Your task to perform on an android device: change the clock display to digital Image 0: 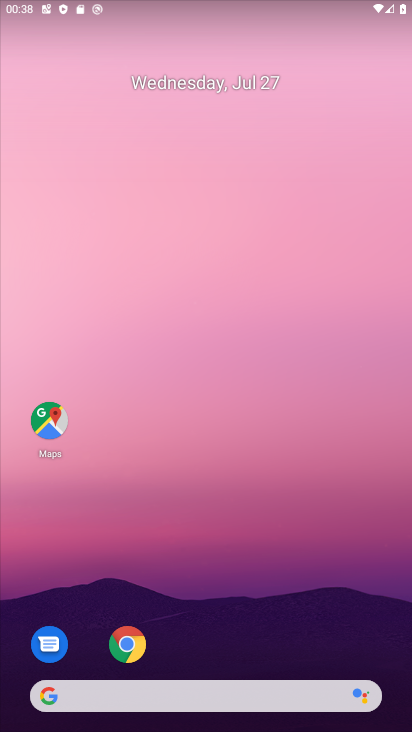
Step 0: drag from (223, 559) to (293, 142)
Your task to perform on an android device: change the clock display to digital Image 1: 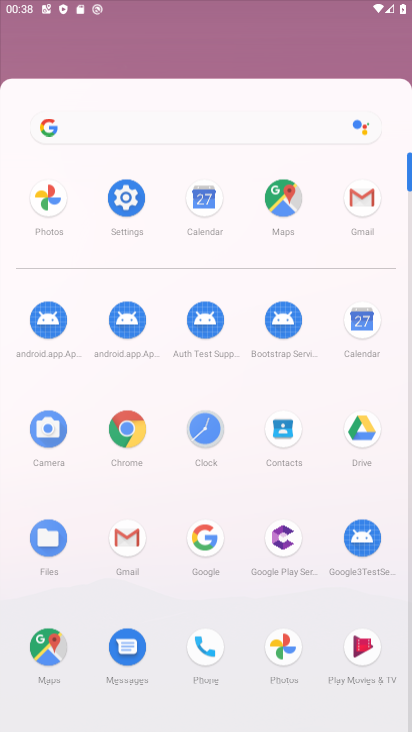
Step 1: drag from (279, 357) to (271, 196)
Your task to perform on an android device: change the clock display to digital Image 2: 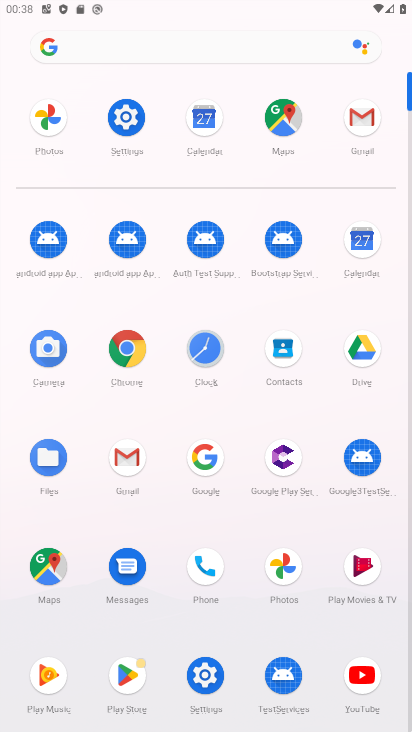
Step 2: drag from (299, 396) to (259, 0)
Your task to perform on an android device: change the clock display to digital Image 3: 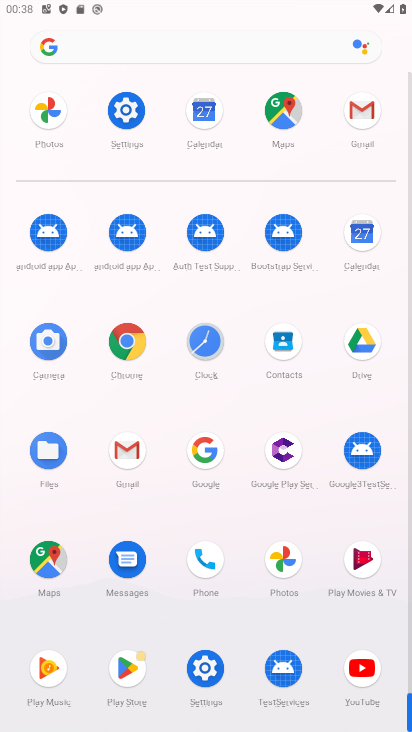
Step 3: click (199, 342)
Your task to perform on an android device: change the clock display to digital Image 4: 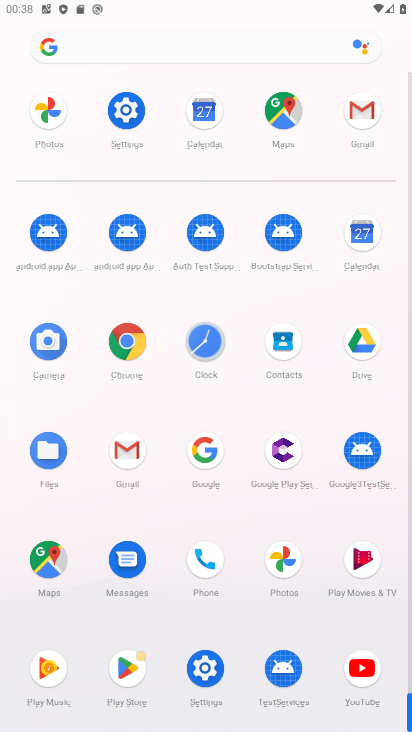
Step 4: click (209, 341)
Your task to perform on an android device: change the clock display to digital Image 5: 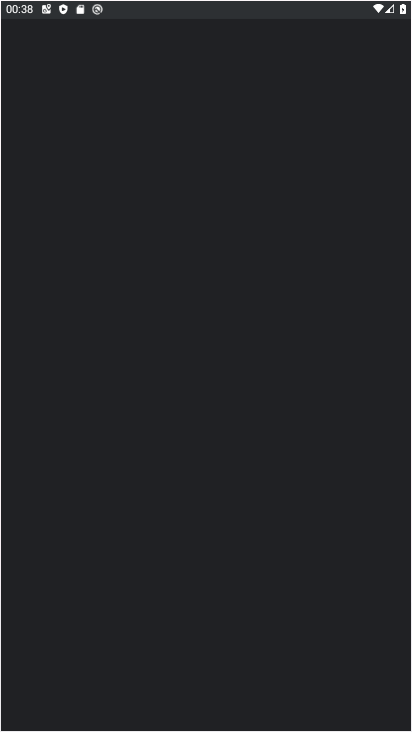
Step 5: click (211, 343)
Your task to perform on an android device: change the clock display to digital Image 6: 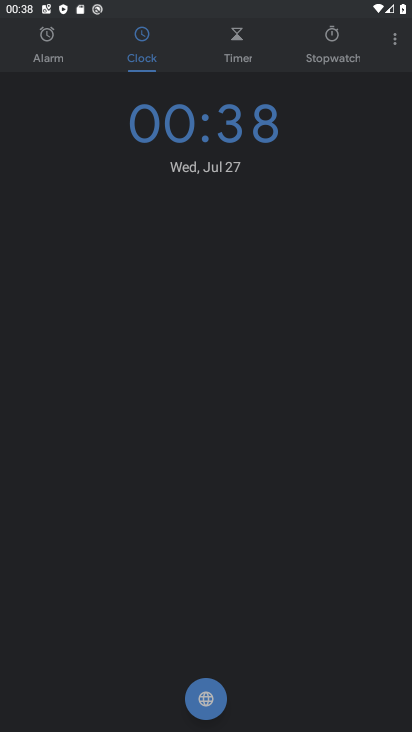
Step 6: click (211, 343)
Your task to perform on an android device: change the clock display to digital Image 7: 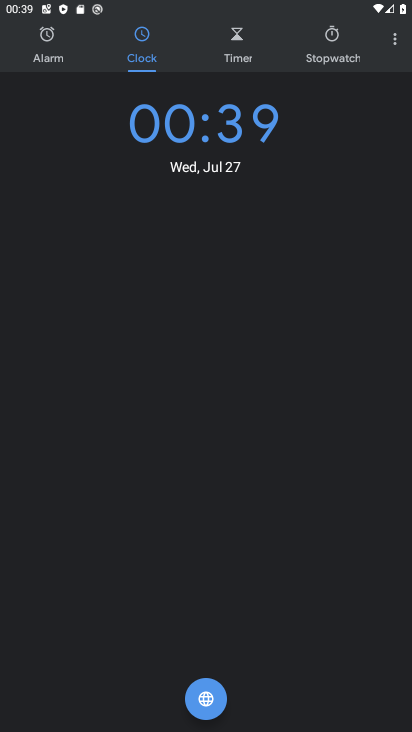
Step 7: drag from (394, 40) to (299, 69)
Your task to perform on an android device: change the clock display to digital Image 8: 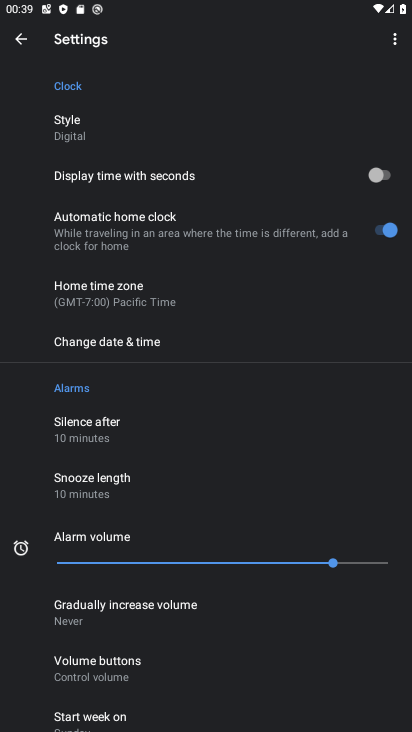
Step 8: click (368, 182)
Your task to perform on an android device: change the clock display to digital Image 9: 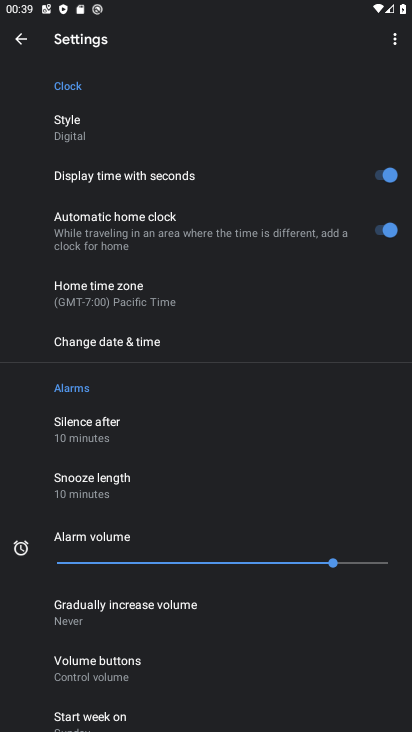
Step 9: click (83, 129)
Your task to perform on an android device: change the clock display to digital Image 10: 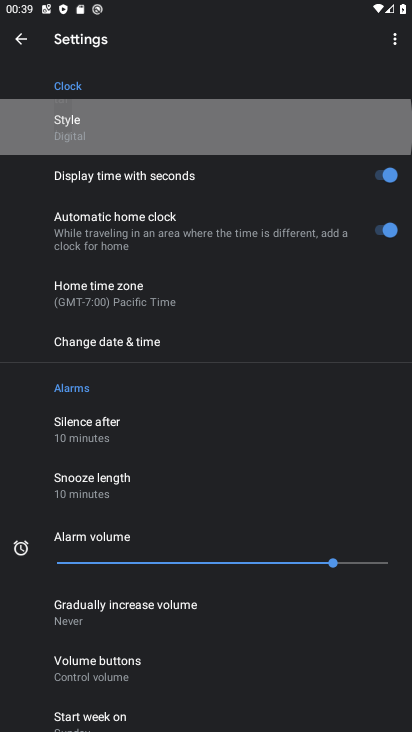
Step 10: click (84, 130)
Your task to perform on an android device: change the clock display to digital Image 11: 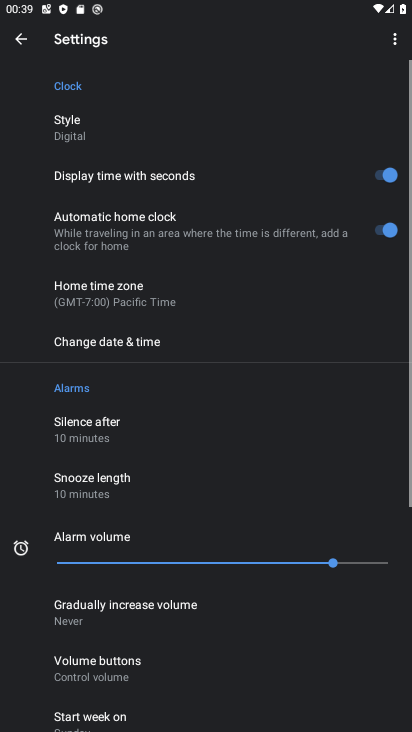
Step 11: task complete